Your task to perform on an android device: Open Wikipedia Image 0: 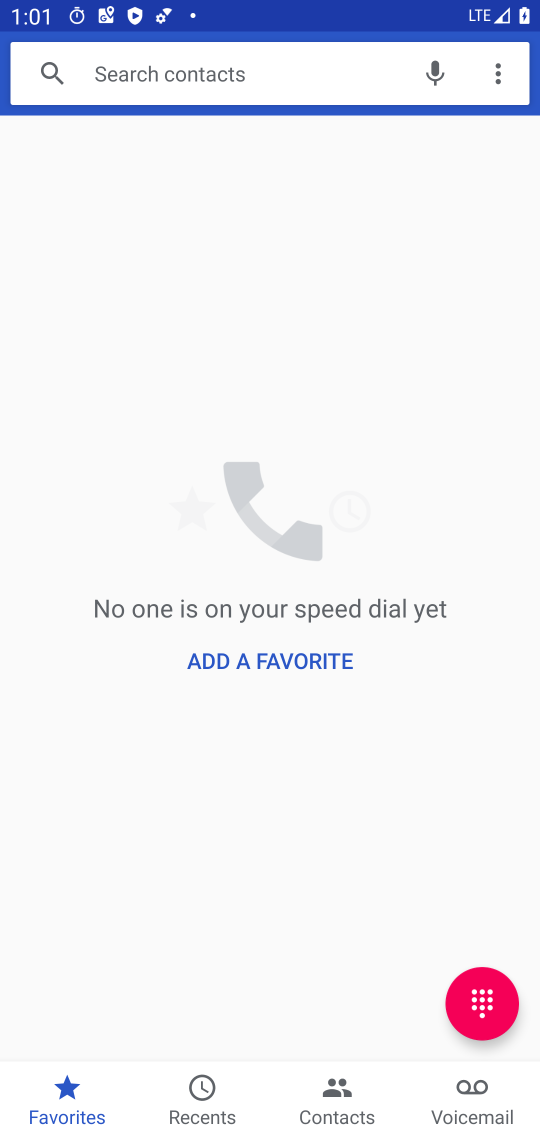
Step 0: press home button
Your task to perform on an android device: Open Wikipedia Image 1: 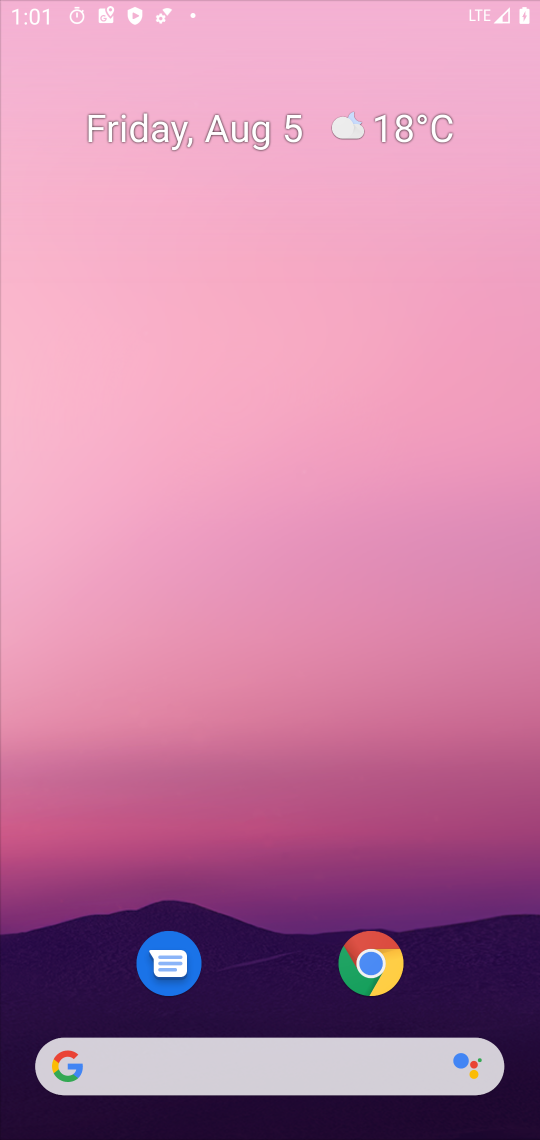
Step 1: drag from (188, 1046) to (403, 134)
Your task to perform on an android device: Open Wikipedia Image 2: 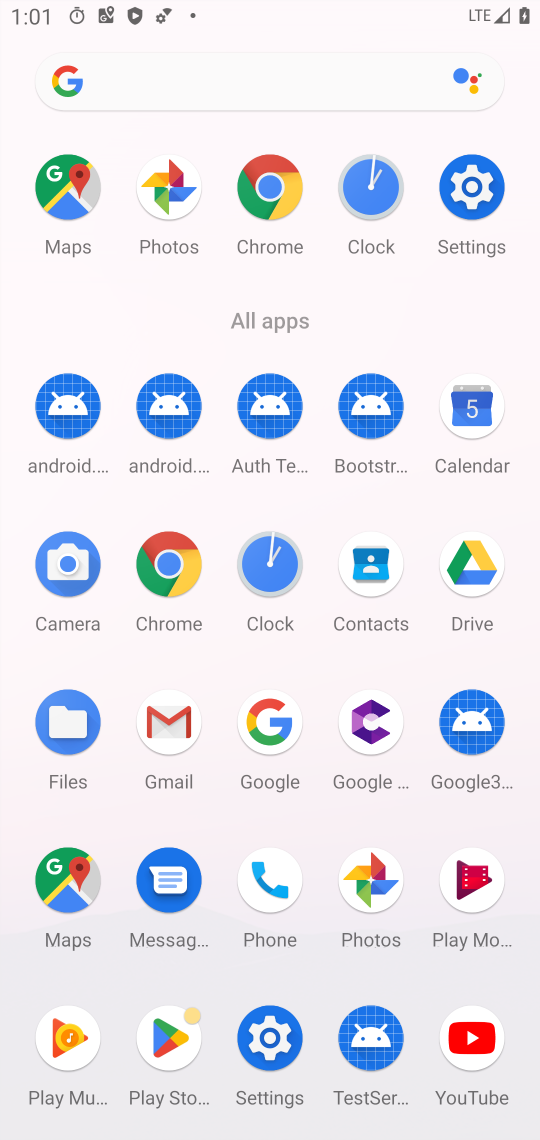
Step 2: click (278, 215)
Your task to perform on an android device: Open Wikipedia Image 3: 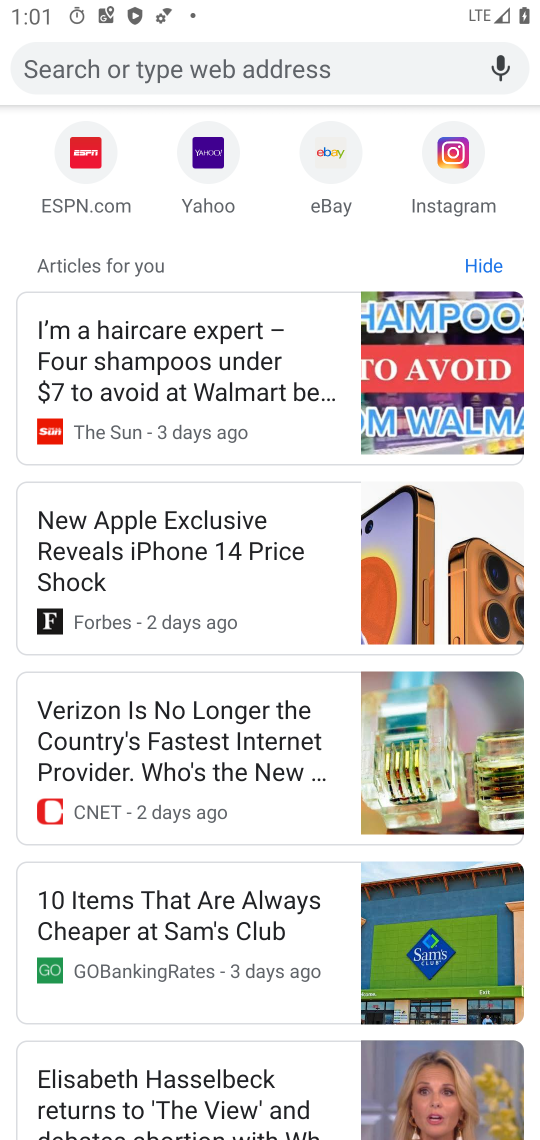
Step 3: drag from (269, 423) to (247, 915)
Your task to perform on an android device: Open Wikipedia Image 4: 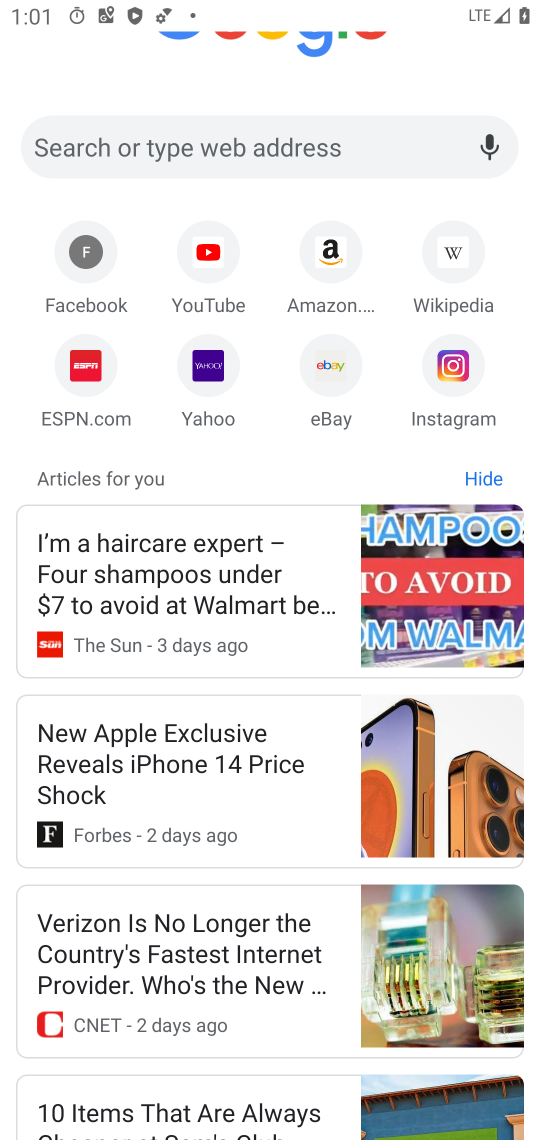
Step 4: click (449, 268)
Your task to perform on an android device: Open Wikipedia Image 5: 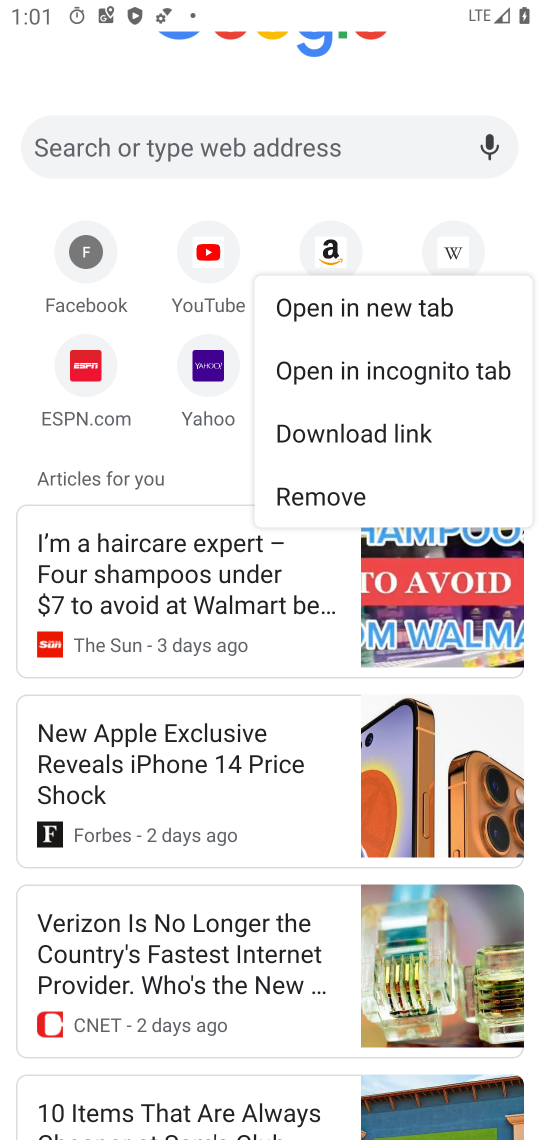
Step 5: click (451, 269)
Your task to perform on an android device: Open Wikipedia Image 6: 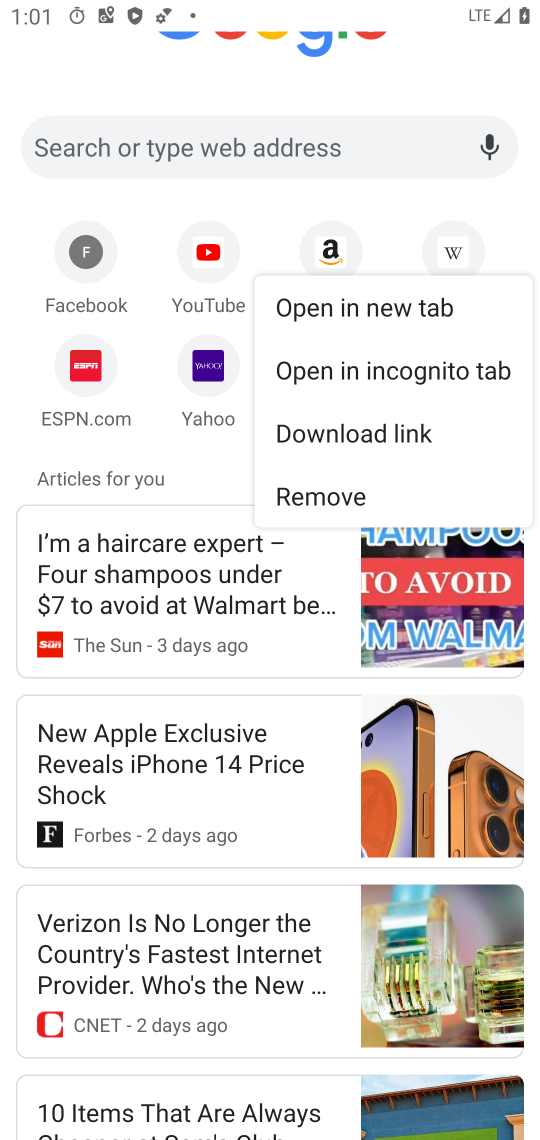
Step 6: click (456, 249)
Your task to perform on an android device: Open Wikipedia Image 7: 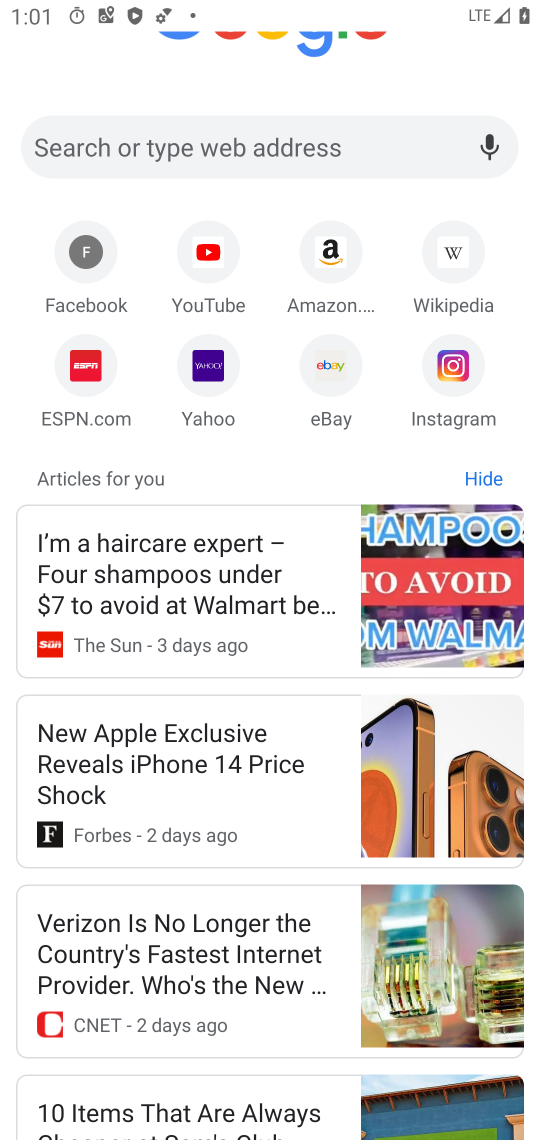
Step 7: click (456, 249)
Your task to perform on an android device: Open Wikipedia Image 8: 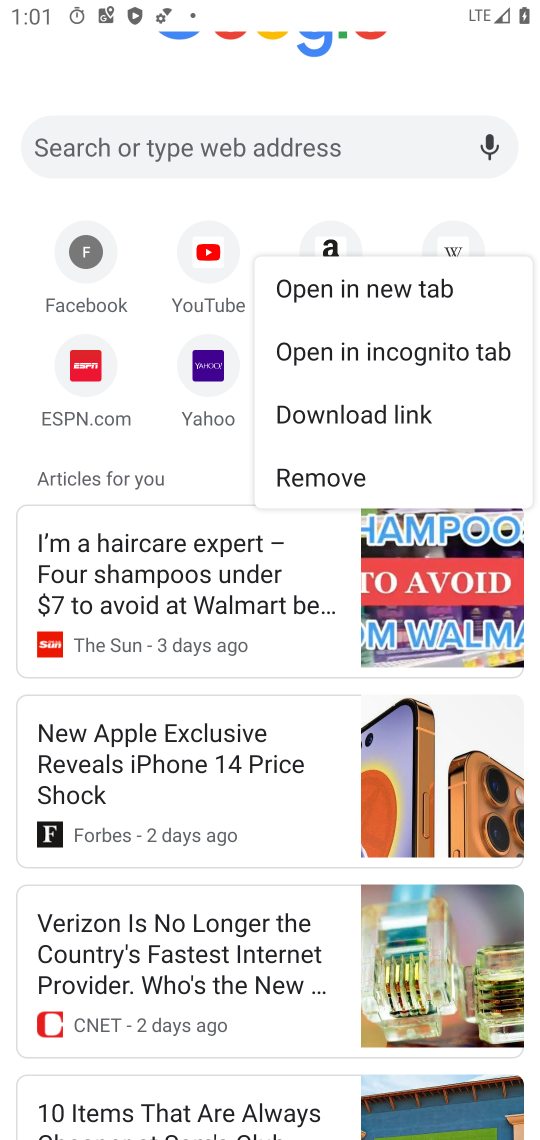
Step 8: click (409, 191)
Your task to perform on an android device: Open Wikipedia Image 9: 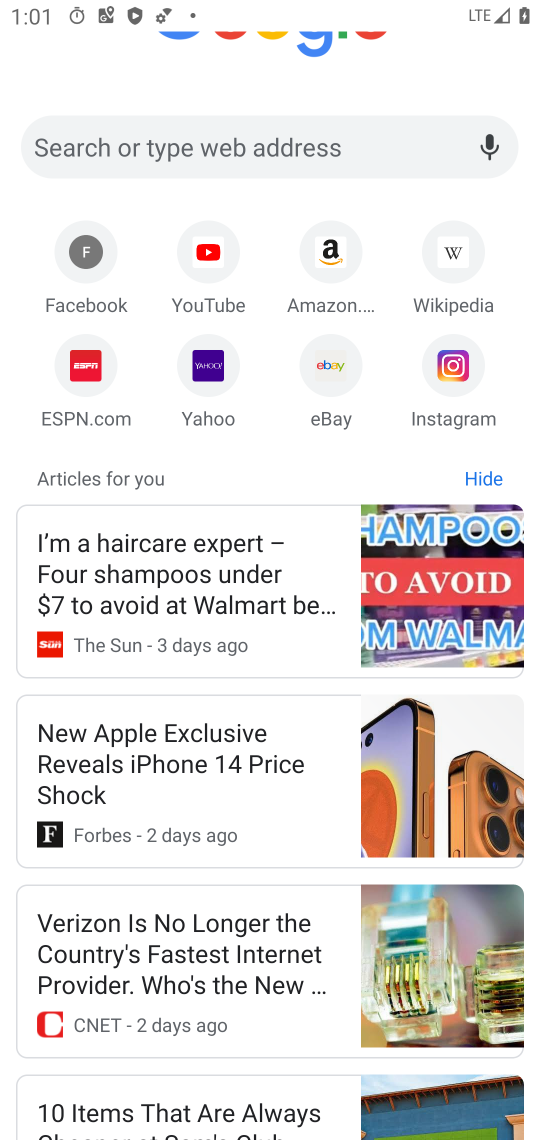
Step 9: click (443, 251)
Your task to perform on an android device: Open Wikipedia Image 10: 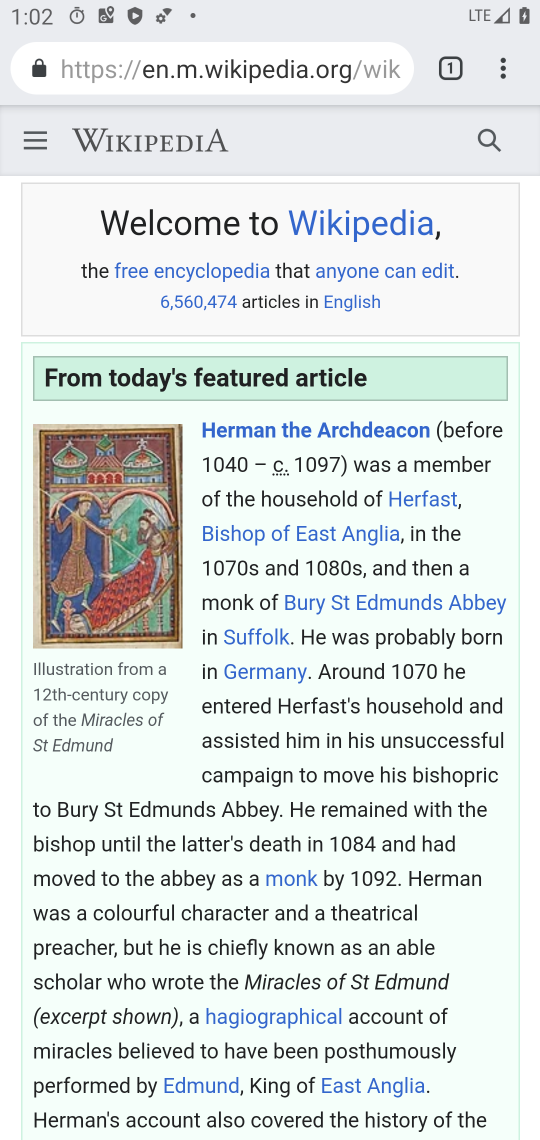
Step 10: task complete